Your task to perform on an android device: Check the news Image 0: 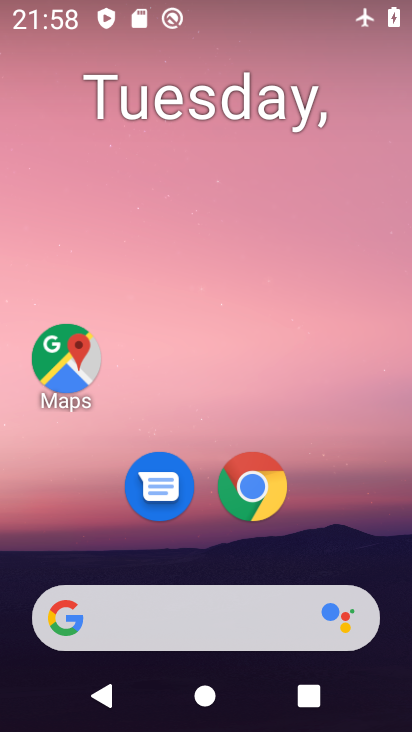
Step 0: drag from (0, 252) to (409, 381)
Your task to perform on an android device: Check the news Image 1: 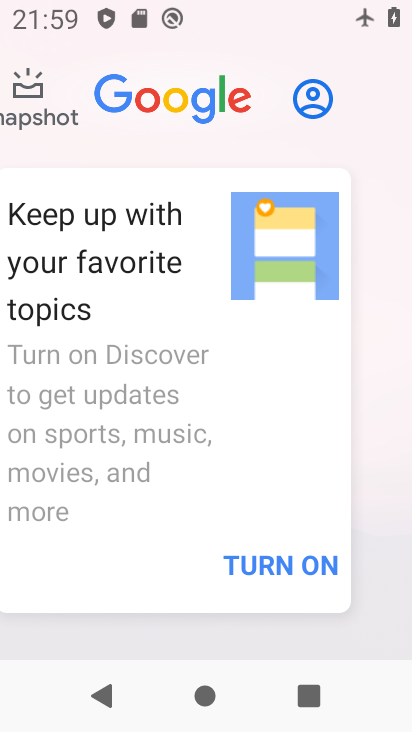
Step 1: task complete